Your task to perform on an android device: empty trash in the gmail app Image 0: 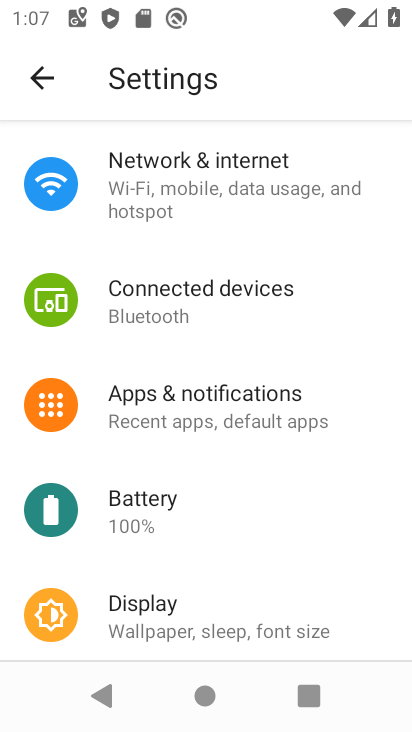
Step 0: press home button
Your task to perform on an android device: empty trash in the gmail app Image 1: 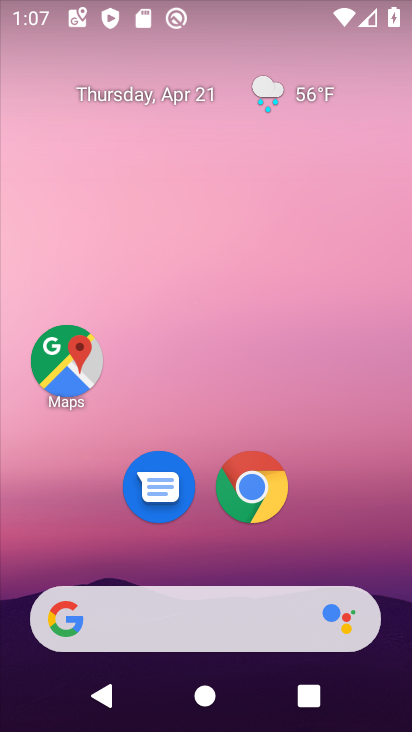
Step 1: drag from (372, 512) to (395, 5)
Your task to perform on an android device: empty trash in the gmail app Image 2: 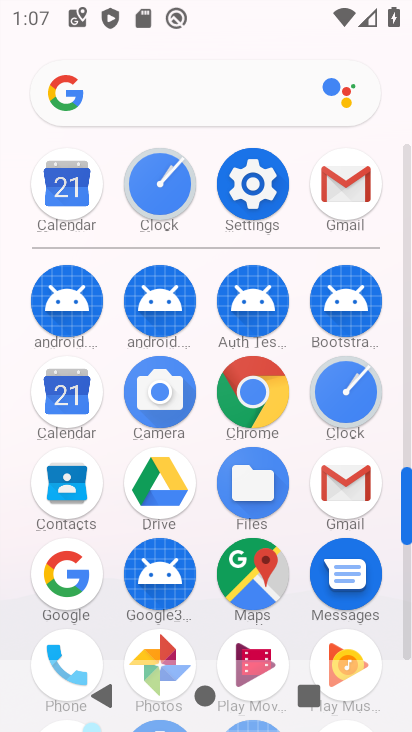
Step 2: click (349, 219)
Your task to perform on an android device: empty trash in the gmail app Image 3: 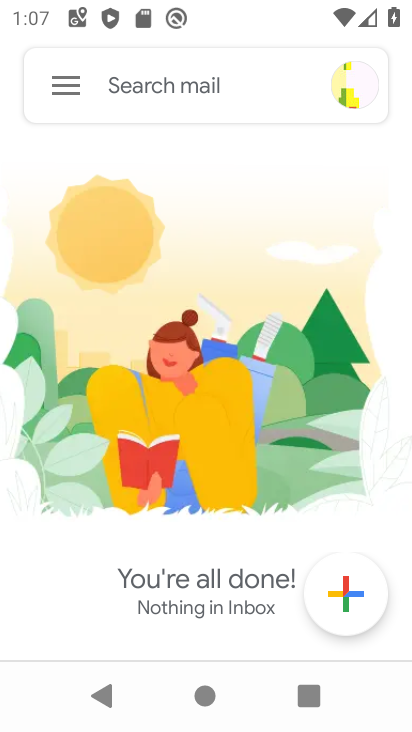
Step 3: click (57, 81)
Your task to perform on an android device: empty trash in the gmail app Image 4: 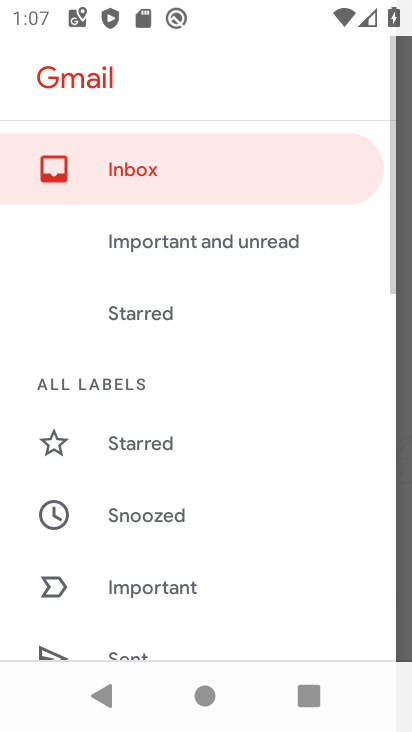
Step 4: drag from (220, 557) to (175, 121)
Your task to perform on an android device: empty trash in the gmail app Image 5: 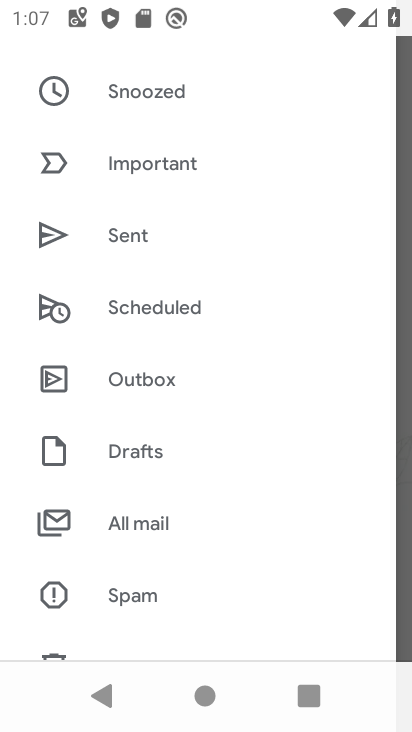
Step 5: drag from (219, 532) to (212, 280)
Your task to perform on an android device: empty trash in the gmail app Image 6: 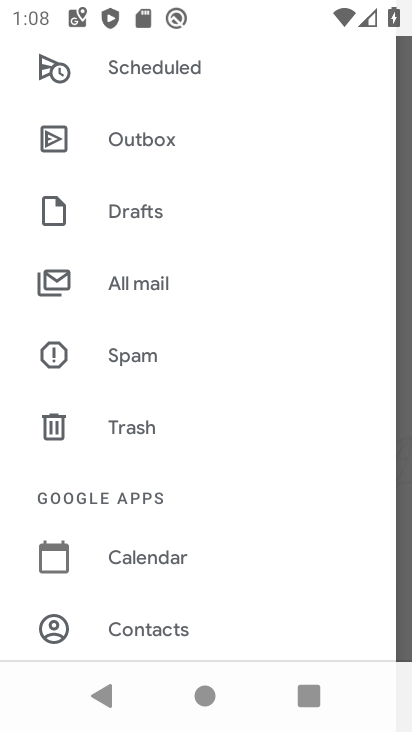
Step 6: click (110, 425)
Your task to perform on an android device: empty trash in the gmail app Image 7: 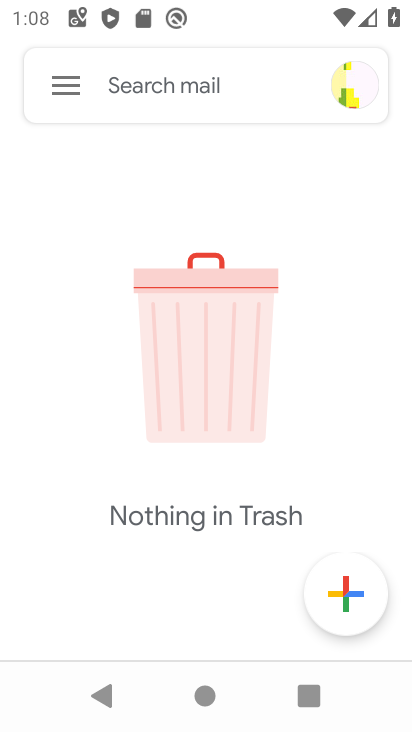
Step 7: task complete